Your task to perform on an android device: Empty the shopping cart on target.com. Search for usb-c on target.com, select the first entry, and add it to the cart. Image 0: 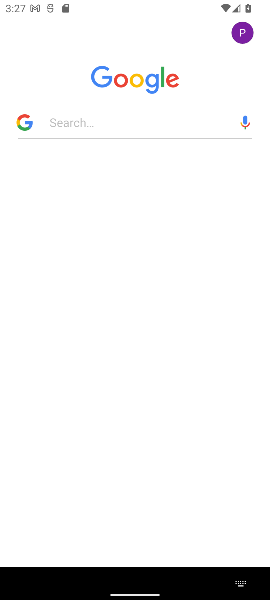
Step 0: press home button
Your task to perform on an android device: Empty the shopping cart on target.com. Search for usb-c on target.com, select the first entry, and add it to the cart. Image 1: 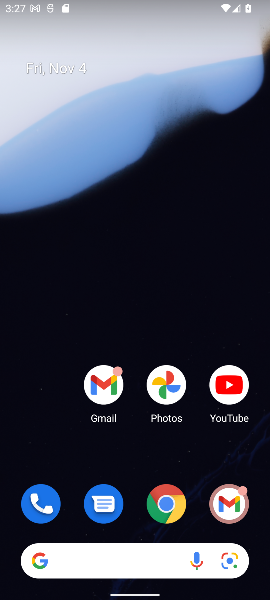
Step 1: click (160, 514)
Your task to perform on an android device: Empty the shopping cart on target.com. Search for usb-c on target.com, select the first entry, and add it to the cart. Image 2: 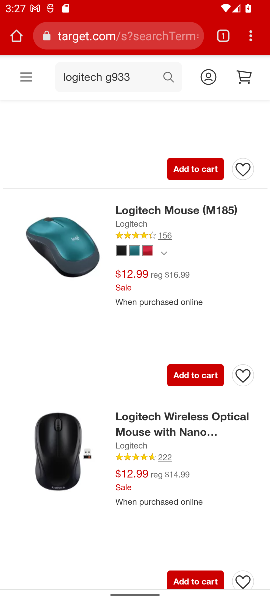
Step 2: click (252, 79)
Your task to perform on an android device: Empty the shopping cart on target.com. Search for usb-c on target.com, select the first entry, and add it to the cart. Image 3: 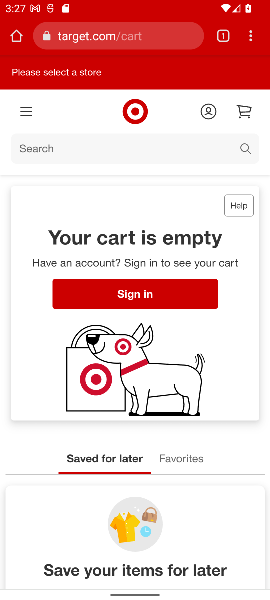
Step 3: click (232, 144)
Your task to perform on an android device: Empty the shopping cart on target.com. Search for usb-c on target.com, select the first entry, and add it to the cart. Image 4: 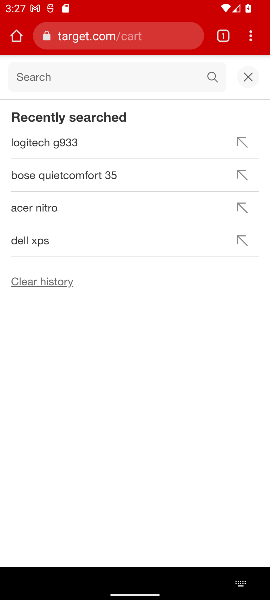
Step 4: type "usb-c"
Your task to perform on an android device: Empty the shopping cart on target.com. Search for usb-c on target.com, select the first entry, and add it to the cart. Image 5: 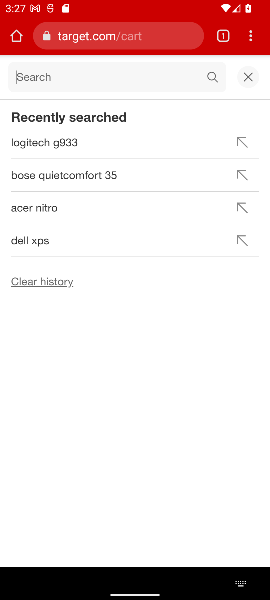
Step 5: type ""
Your task to perform on an android device: Empty the shopping cart on target.com. Search for usb-c on target.com, select the first entry, and add it to the cart. Image 6: 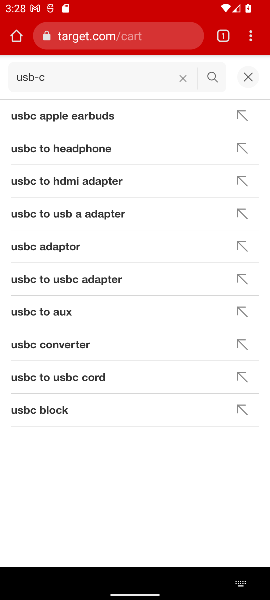
Step 6: click (214, 76)
Your task to perform on an android device: Empty the shopping cart on target.com. Search for usb-c on target.com, select the first entry, and add it to the cart. Image 7: 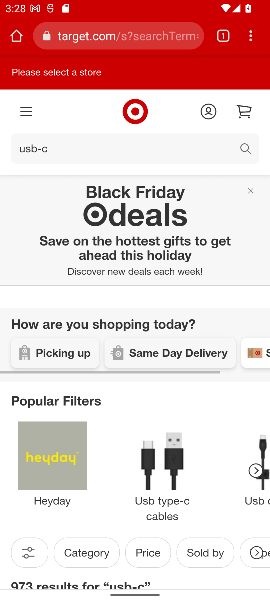
Step 7: drag from (124, 460) to (114, 230)
Your task to perform on an android device: Empty the shopping cart on target.com. Search for usb-c on target.com, select the first entry, and add it to the cart. Image 8: 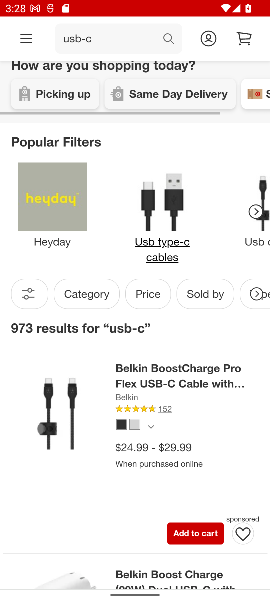
Step 8: click (107, 399)
Your task to perform on an android device: Empty the shopping cart on target.com. Search for usb-c on target.com, select the first entry, and add it to the cart. Image 9: 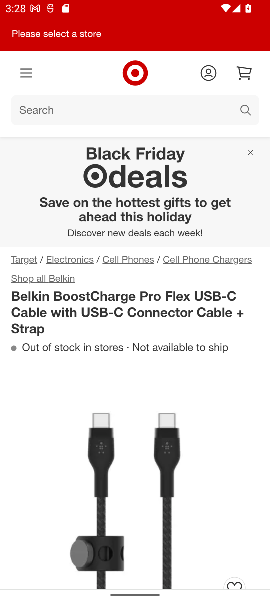
Step 9: drag from (132, 501) to (103, 244)
Your task to perform on an android device: Empty the shopping cart on target.com. Search for usb-c on target.com, select the first entry, and add it to the cart. Image 10: 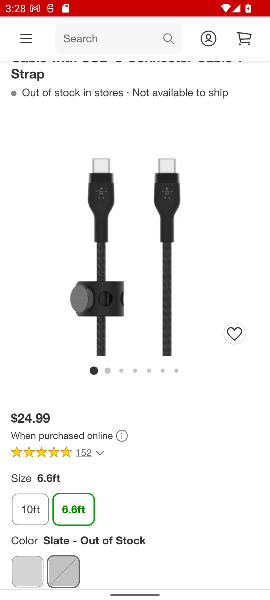
Step 10: drag from (185, 485) to (184, 328)
Your task to perform on an android device: Empty the shopping cart on target.com. Search for usb-c on target.com, select the first entry, and add it to the cart. Image 11: 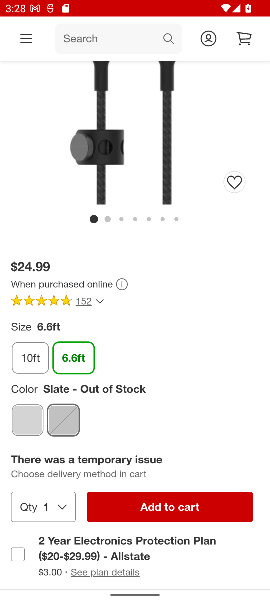
Step 11: click (152, 506)
Your task to perform on an android device: Empty the shopping cart on target.com. Search for usb-c on target.com, select the first entry, and add it to the cart. Image 12: 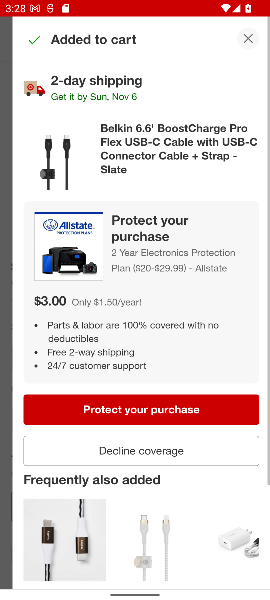
Step 12: task complete